Your task to perform on an android device: See recent photos Image 0: 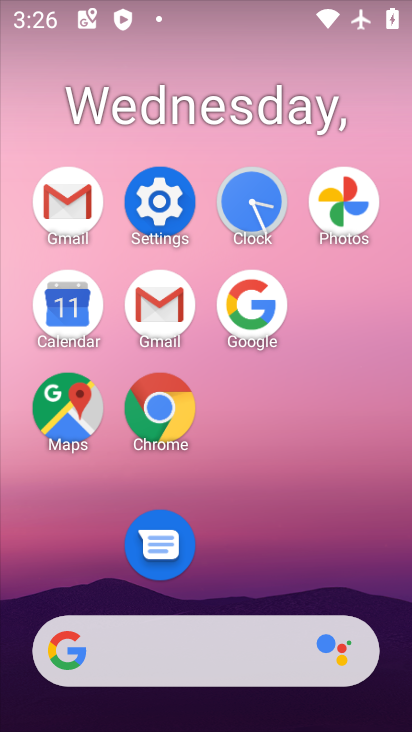
Step 0: click (326, 203)
Your task to perform on an android device: See recent photos Image 1: 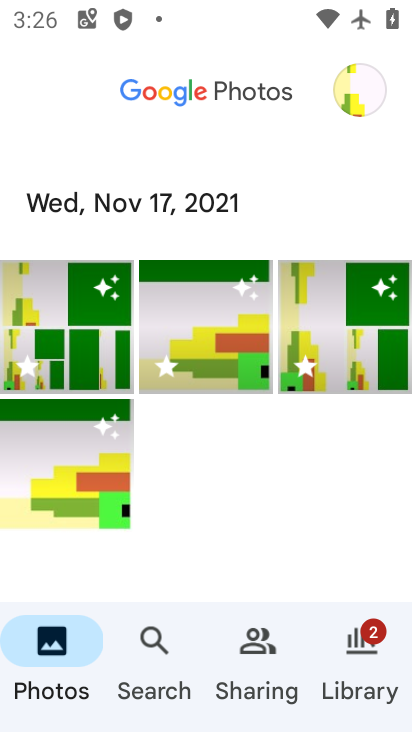
Step 1: click (97, 323)
Your task to perform on an android device: See recent photos Image 2: 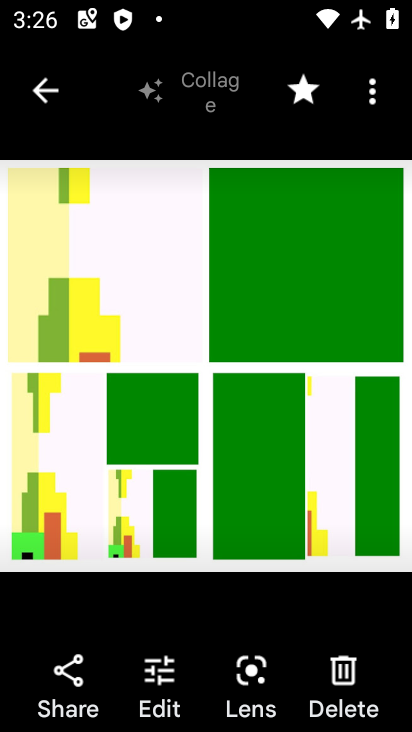
Step 2: task complete